Your task to perform on an android device: What's the weather? Image 0: 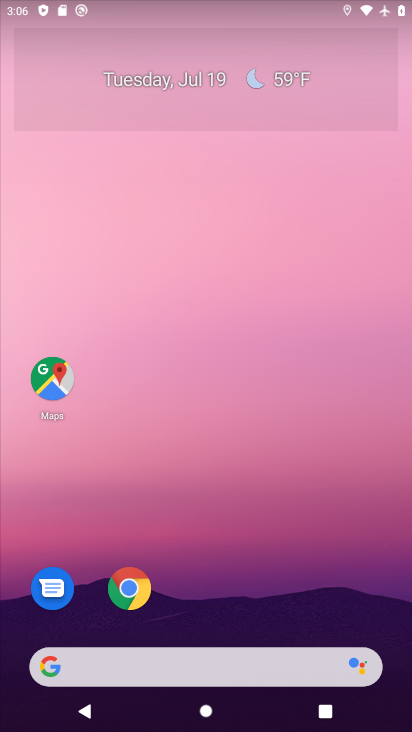
Step 0: click (43, 665)
Your task to perform on an android device: What's the weather? Image 1: 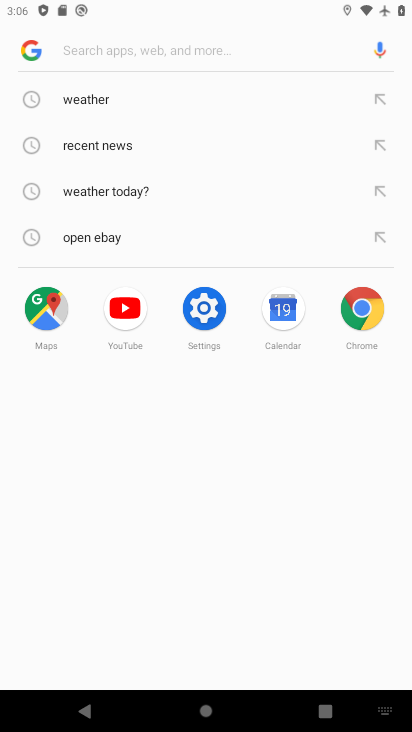
Step 1: type " weather"
Your task to perform on an android device: What's the weather? Image 2: 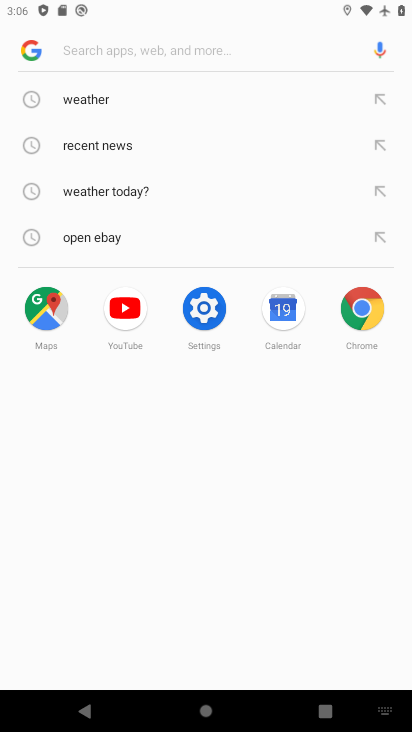
Step 2: click (75, 48)
Your task to perform on an android device: What's the weather? Image 3: 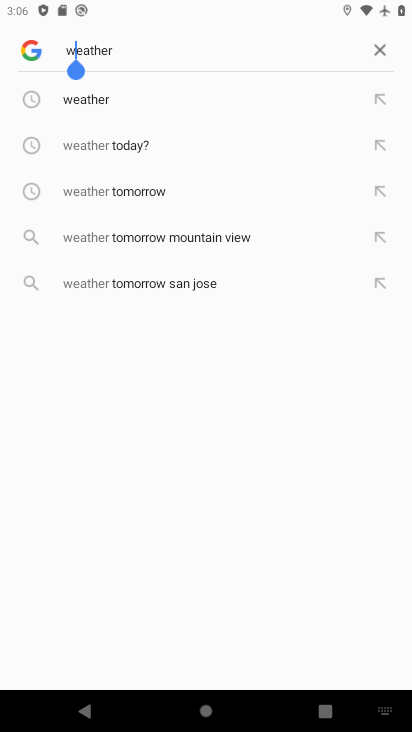
Step 3: press enter
Your task to perform on an android device: What's the weather? Image 4: 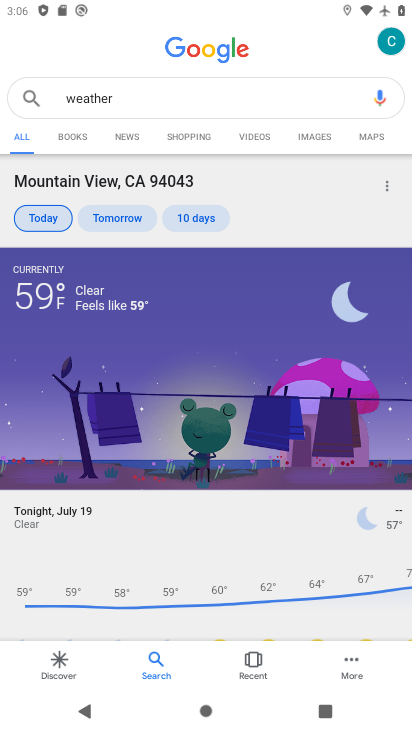
Step 4: task complete